Your task to perform on an android device: Clear all items from cart on costco.com. Add panasonic triple a to the cart on costco.com, then select checkout. Image 0: 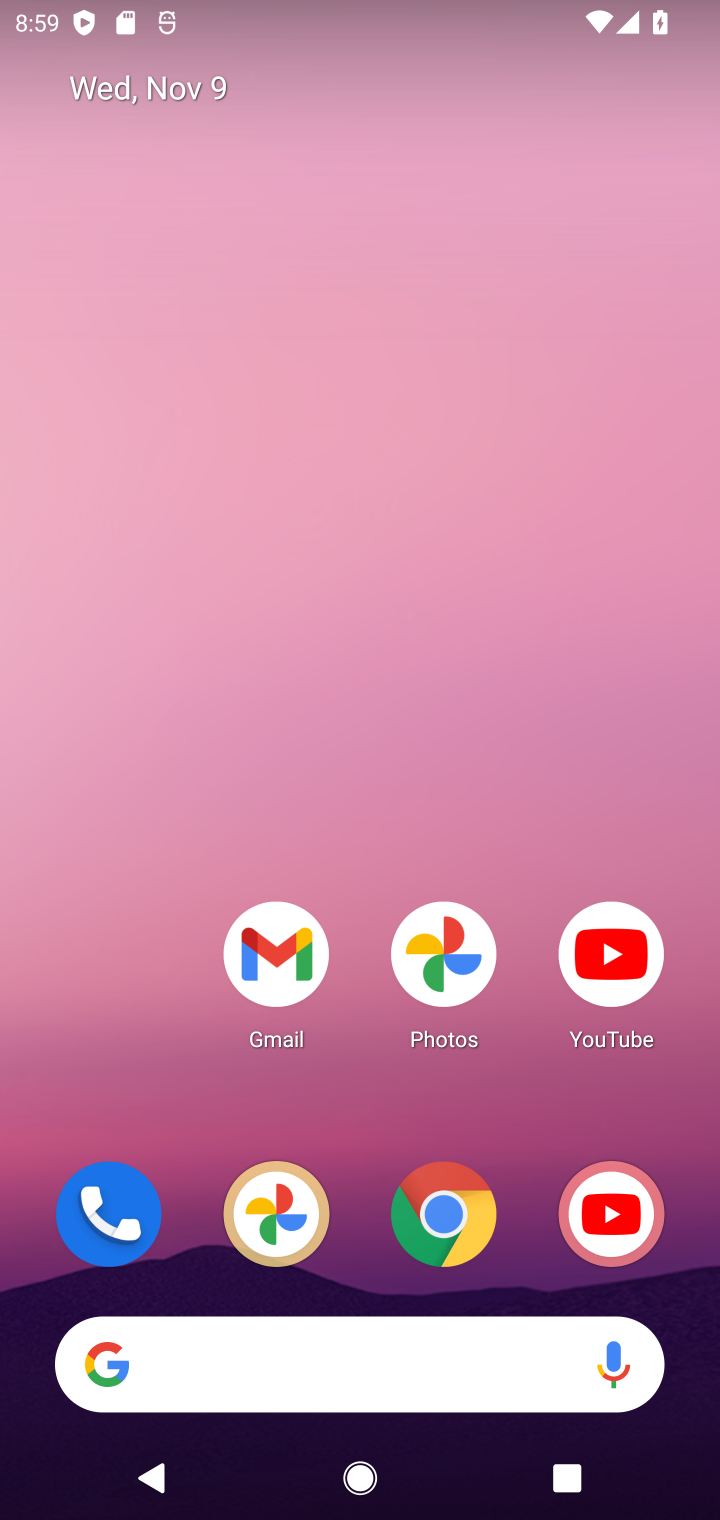
Step 0: drag from (410, 620) to (437, 88)
Your task to perform on an android device: Clear all items from cart on costco.com. Add panasonic triple a to the cart on costco.com, then select checkout. Image 1: 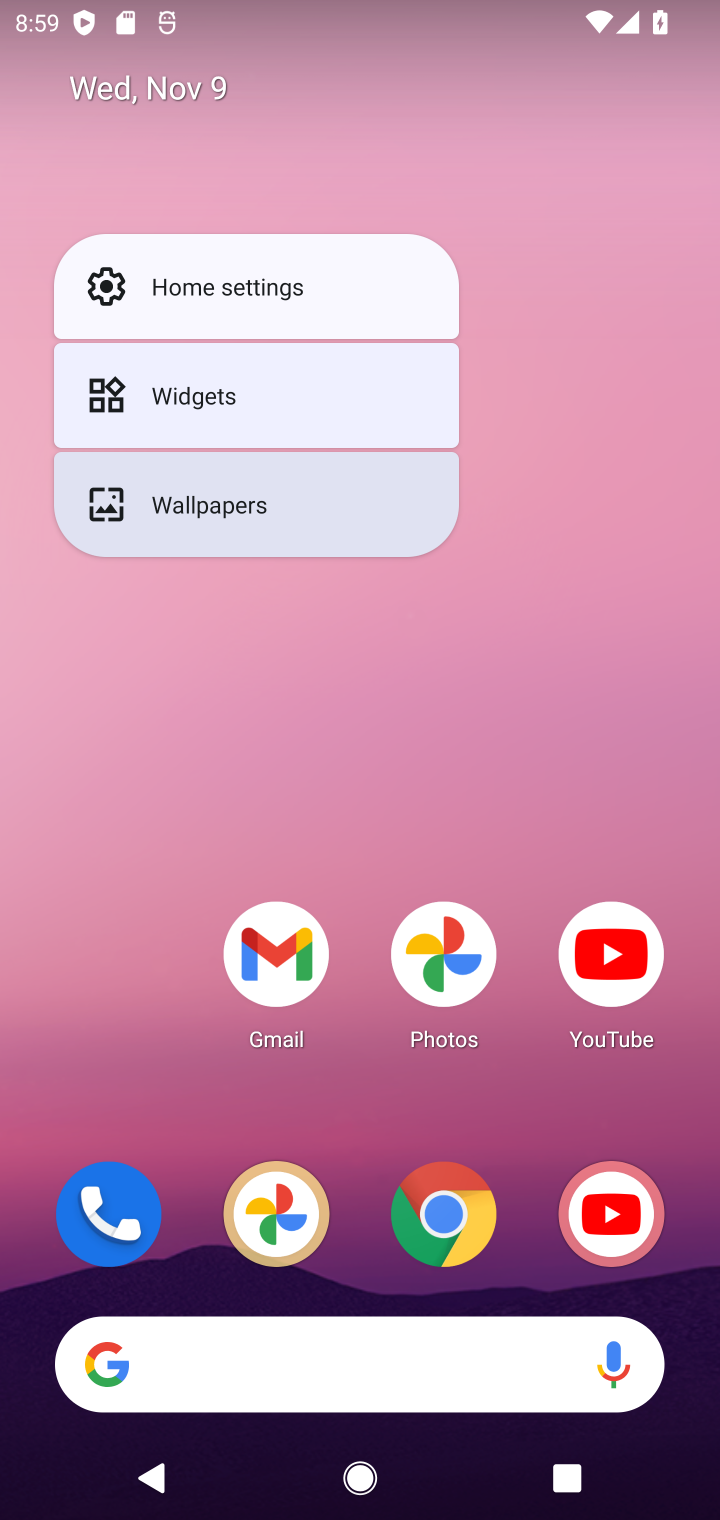
Step 1: click (656, 509)
Your task to perform on an android device: Clear all items from cart on costco.com. Add panasonic triple a to the cart on costco.com, then select checkout. Image 2: 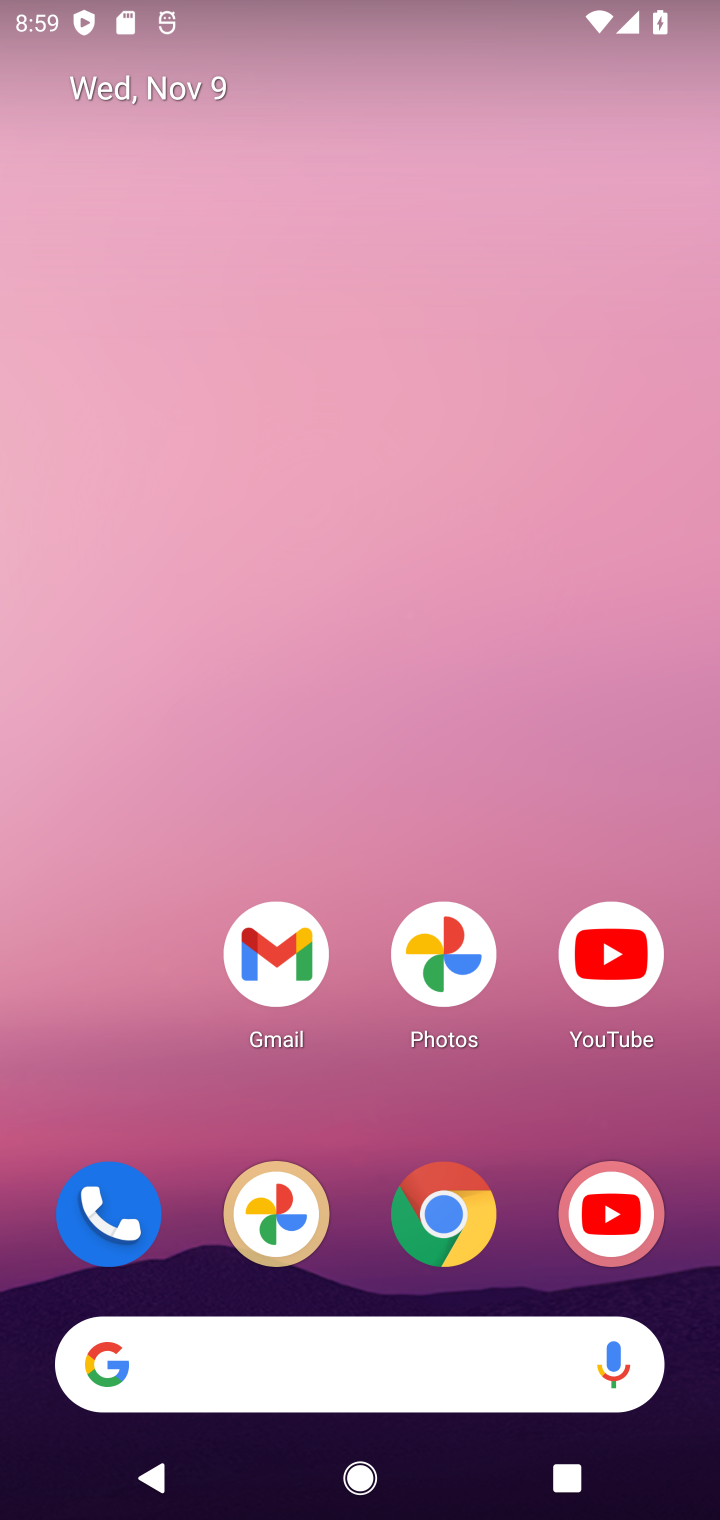
Step 2: drag from (364, 1130) to (443, 29)
Your task to perform on an android device: Clear all items from cart on costco.com. Add panasonic triple a to the cart on costco.com, then select checkout. Image 3: 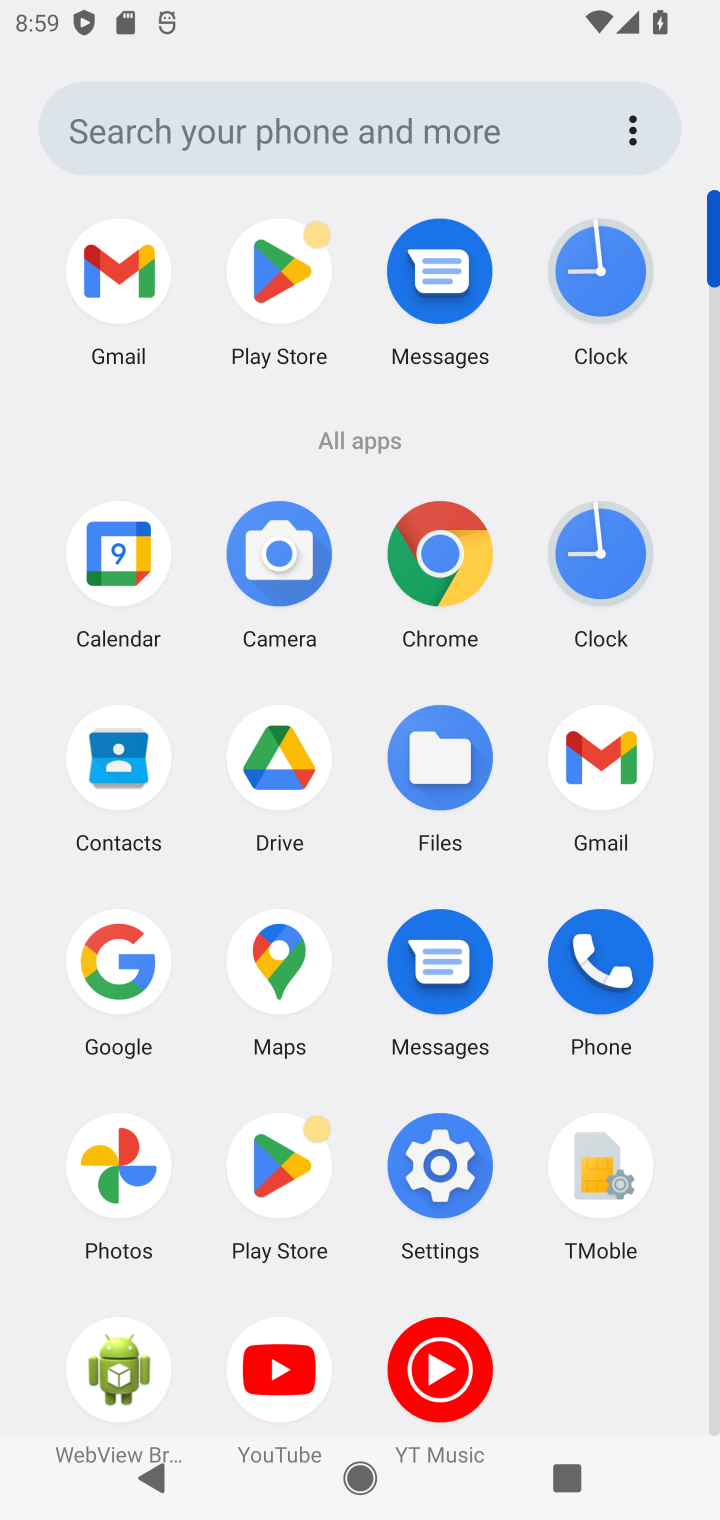
Step 3: click (436, 544)
Your task to perform on an android device: Clear all items from cart on costco.com. Add panasonic triple a to the cart on costco.com, then select checkout. Image 4: 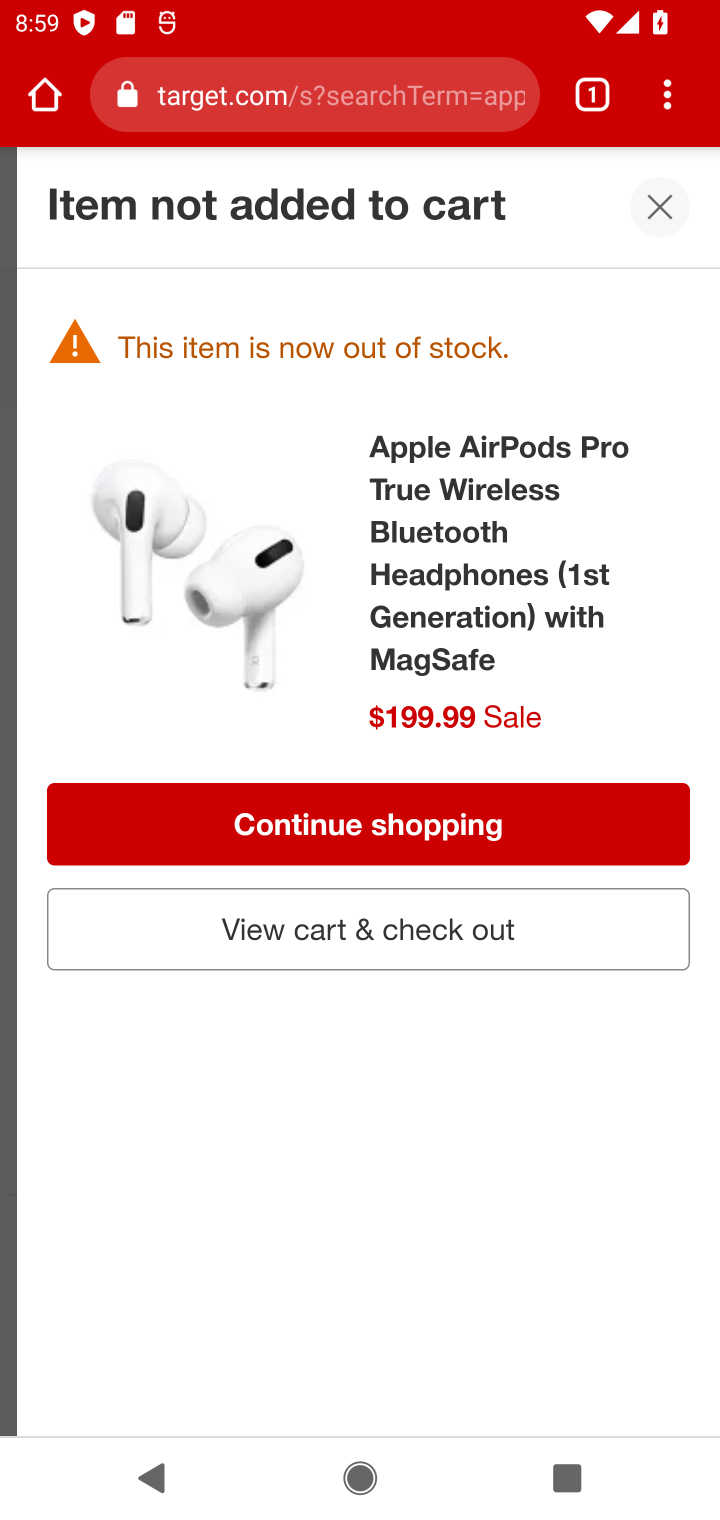
Step 4: click (412, 99)
Your task to perform on an android device: Clear all items from cart on costco.com. Add panasonic triple a to the cart on costco.com, then select checkout. Image 5: 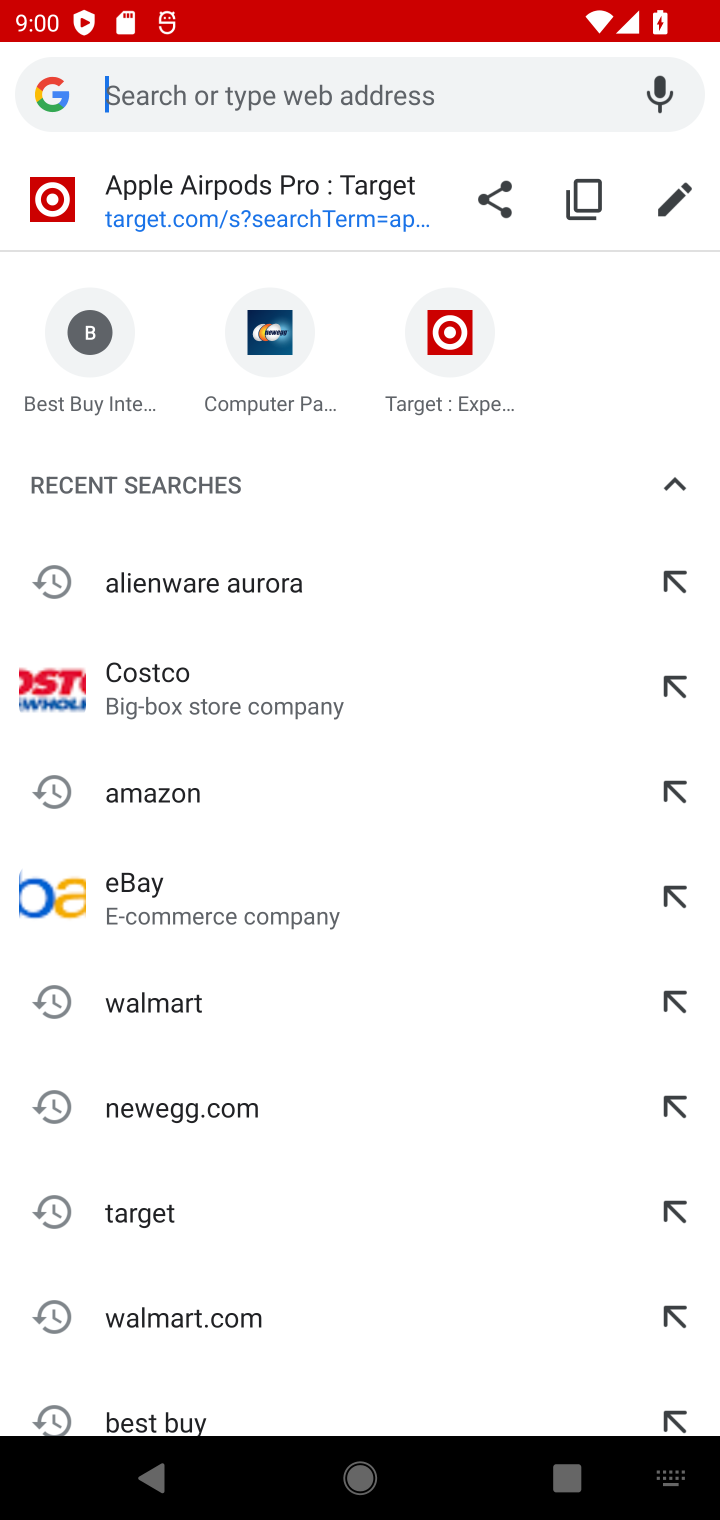
Step 5: type "costco.com"
Your task to perform on an android device: Clear all items from cart on costco.com. Add panasonic triple a to the cart on costco.com, then select checkout. Image 6: 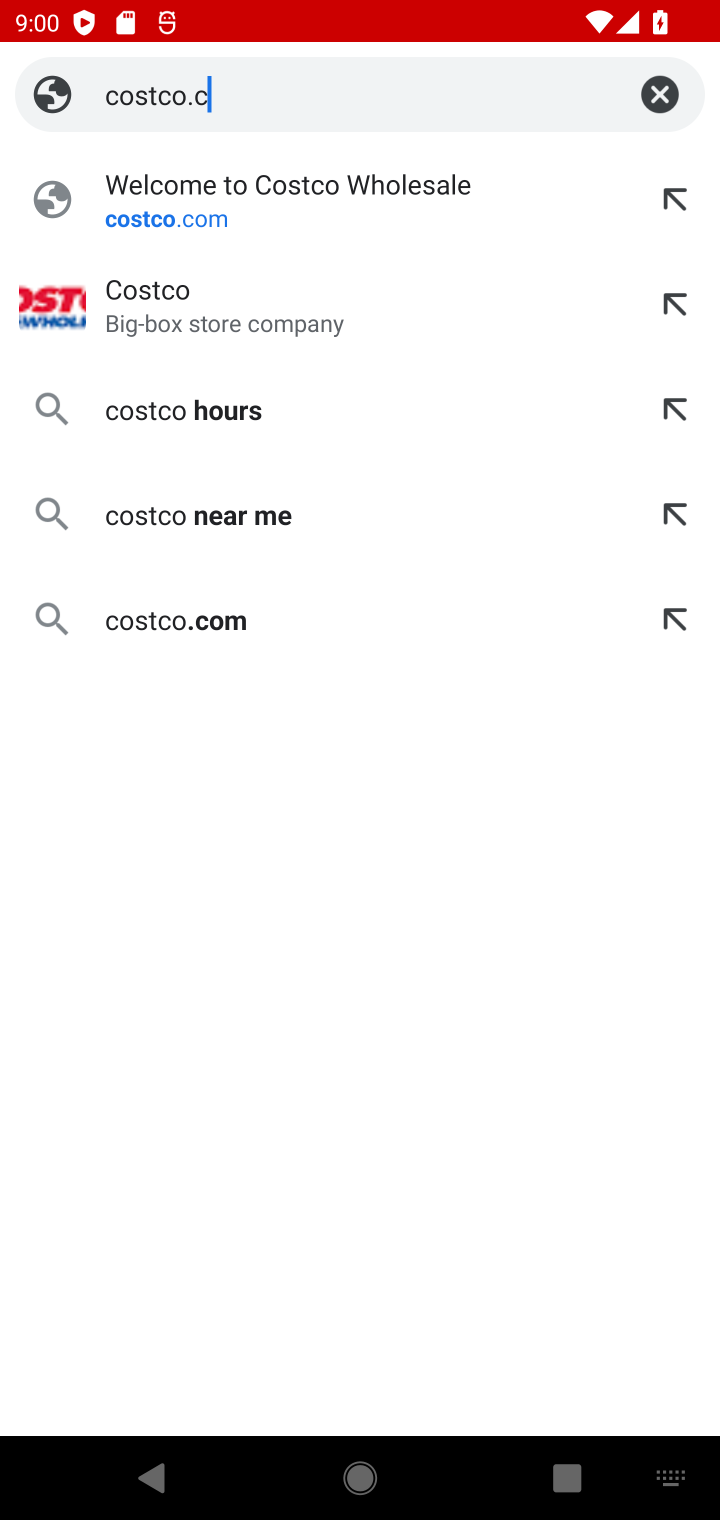
Step 6: press enter
Your task to perform on an android device: Clear all items from cart on costco.com. Add panasonic triple a to the cart on costco.com, then select checkout. Image 7: 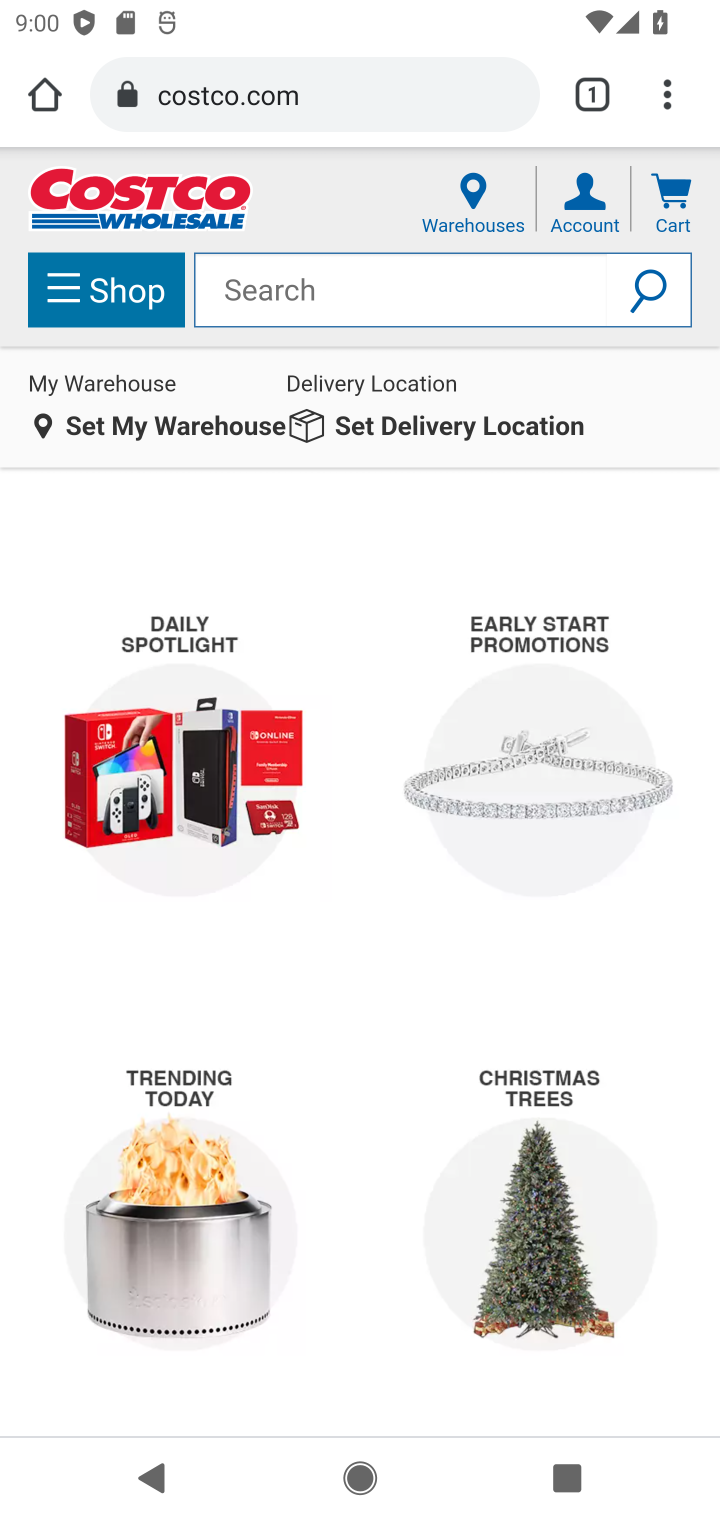
Step 7: click (487, 309)
Your task to perform on an android device: Clear all items from cart on costco.com. Add panasonic triple a to the cart on costco.com, then select checkout. Image 8: 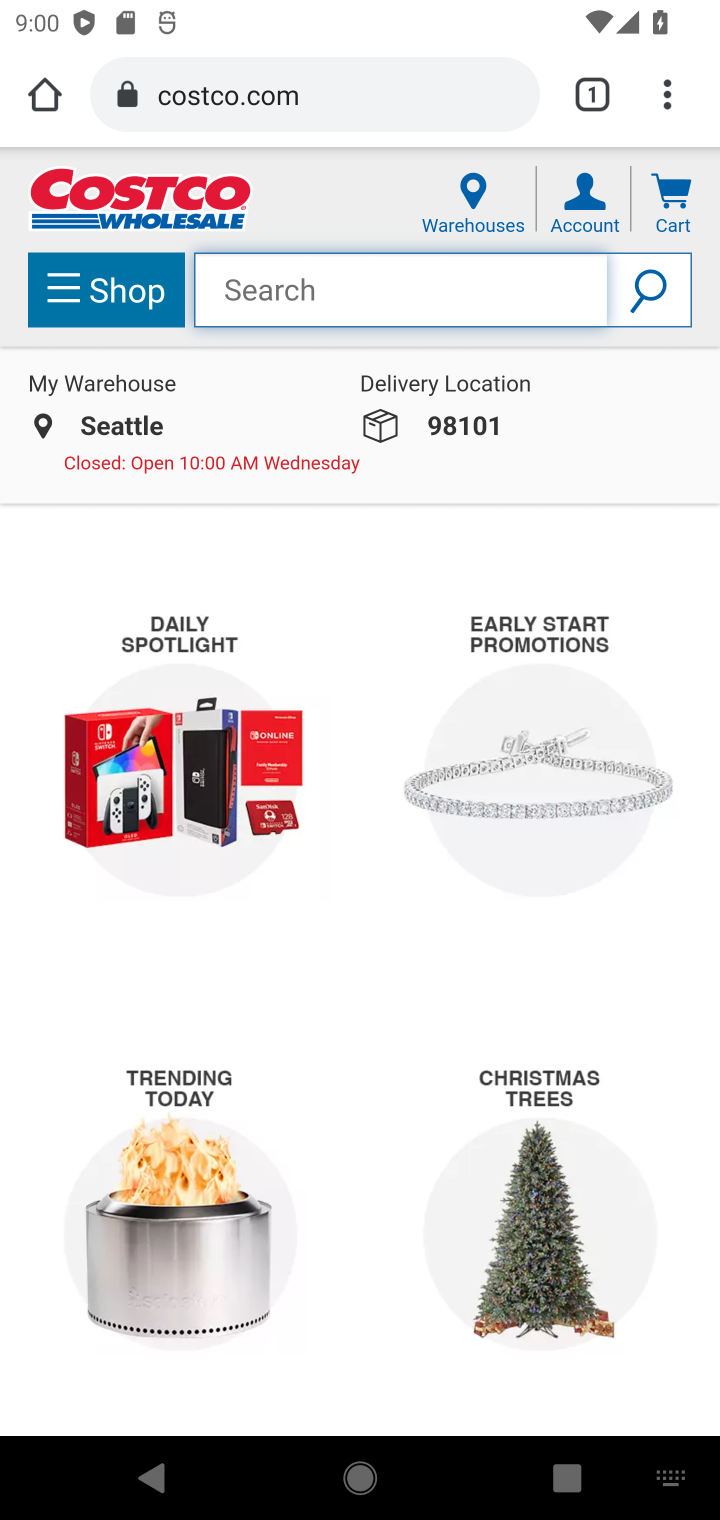
Step 8: click (673, 182)
Your task to perform on an android device: Clear all items from cart on costco.com. Add panasonic triple a to the cart on costco.com, then select checkout. Image 9: 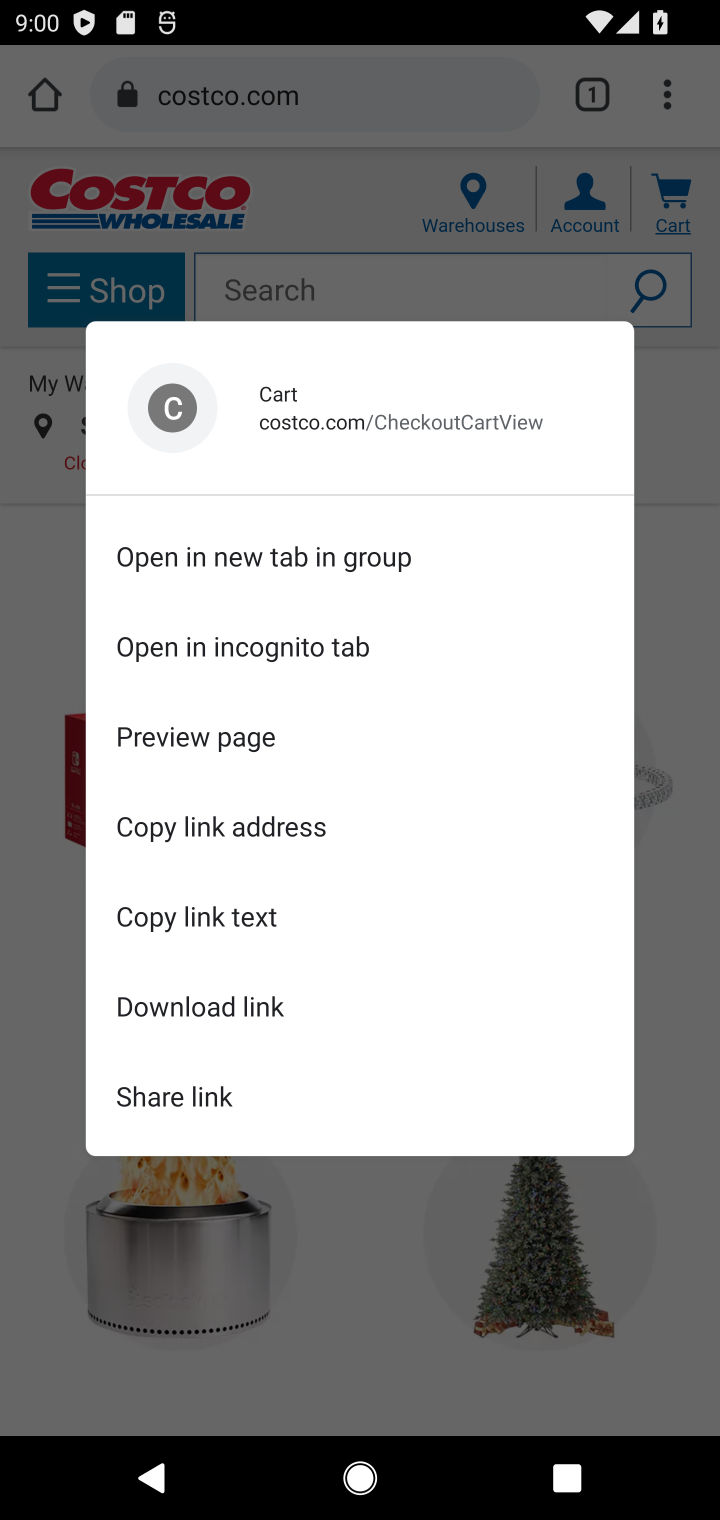
Step 9: click (660, 224)
Your task to perform on an android device: Clear all items from cart on costco.com. Add panasonic triple a to the cart on costco.com, then select checkout. Image 10: 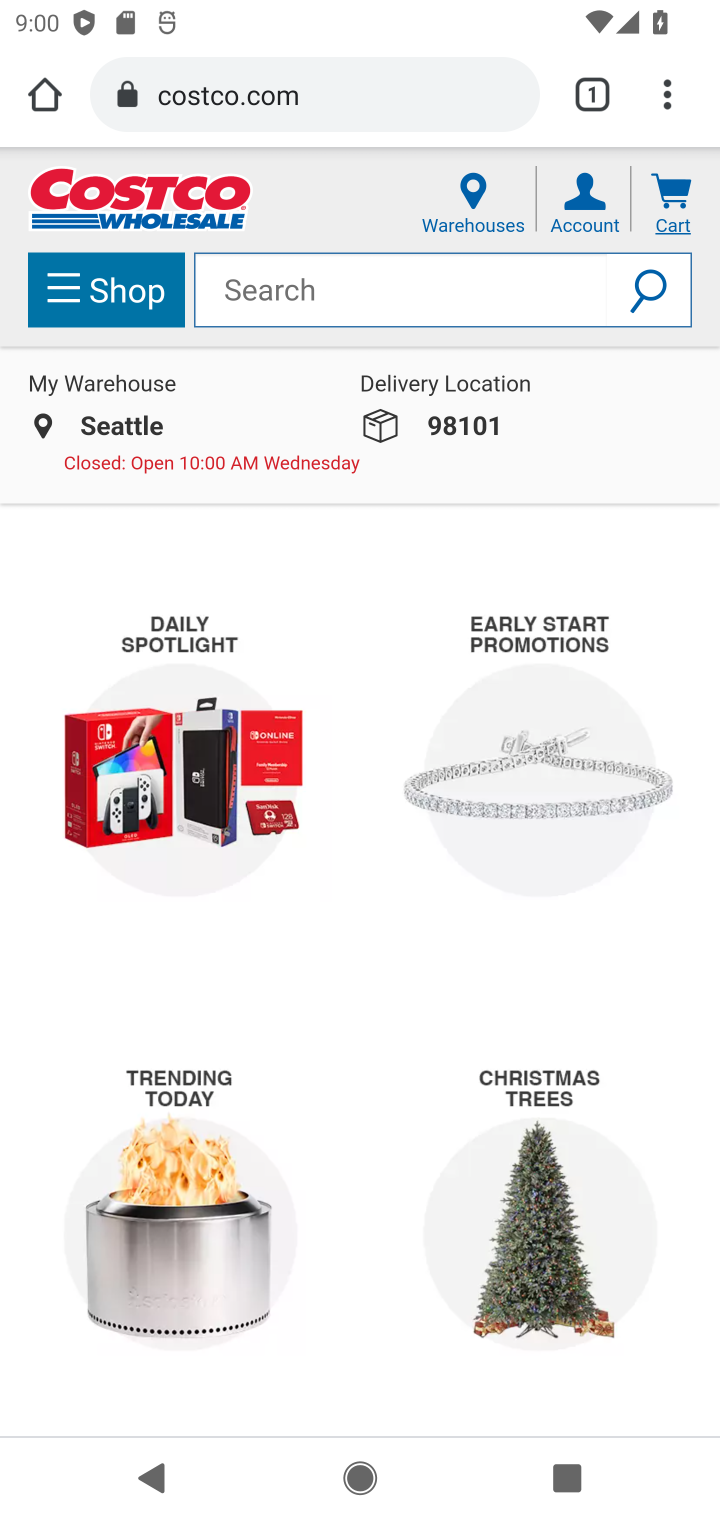
Step 10: click (668, 203)
Your task to perform on an android device: Clear all items from cart on costco.com. Add panasonic triple a to the cart on costco.com, then select checkout. Image 11: 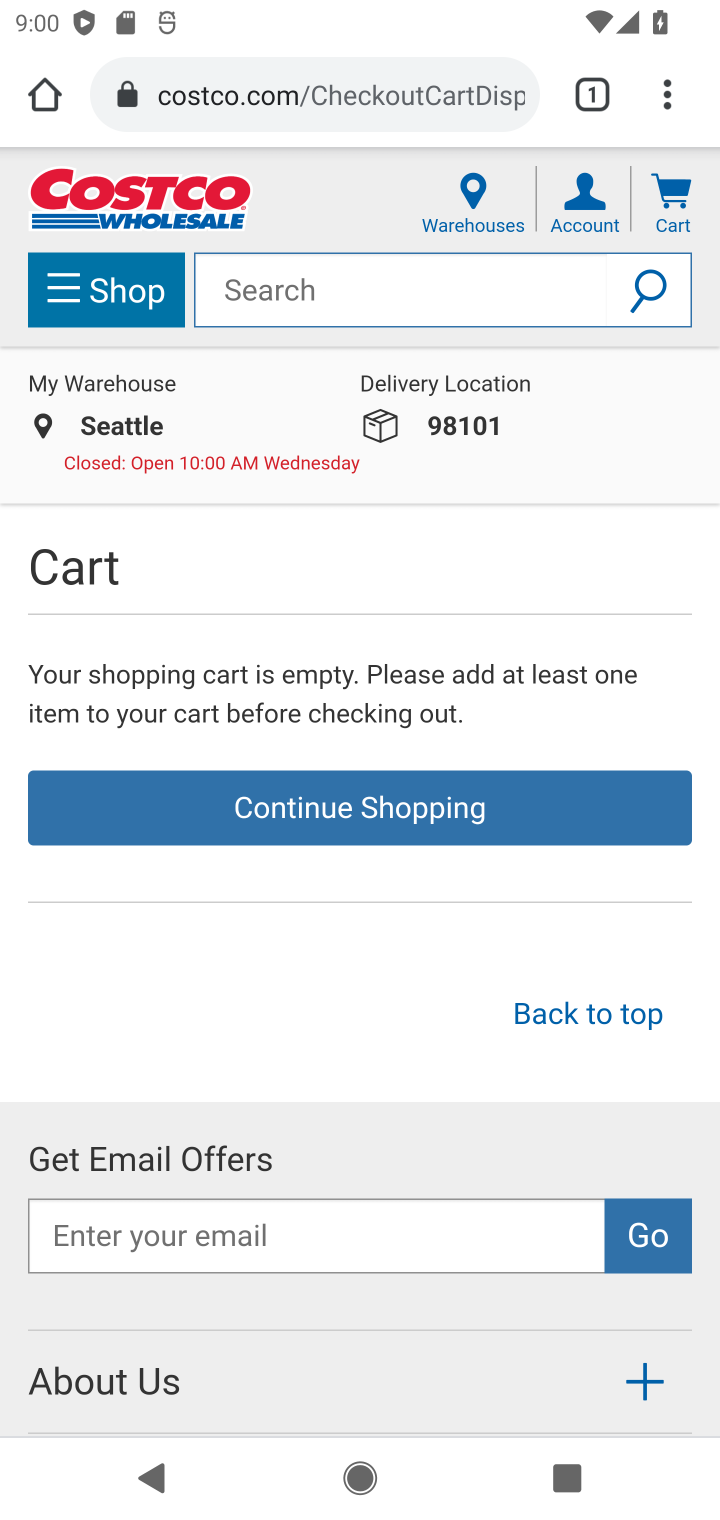
Step 11: click (399, 269)
Your task to perform on an android device: Clear all items from cart on costco.com. Add panasonic triple a to the cart on costco.com, then select checkout. Image 12: 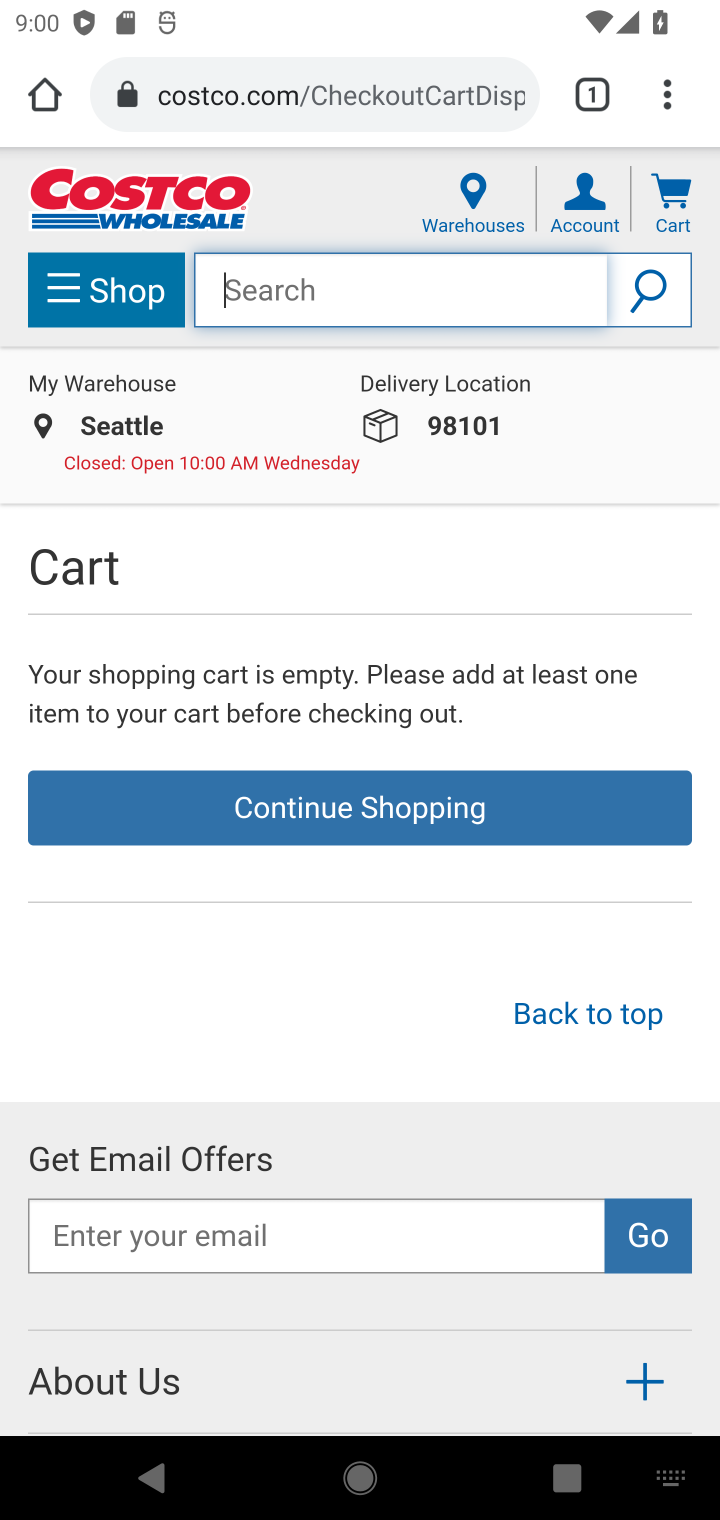
Step 12: type "panasonic triple a"
Your task to perform on an android device: Clear all items from cart on costco.com. Add panasonic triple a to the cart on costco.com, then select checkout. Image 13: 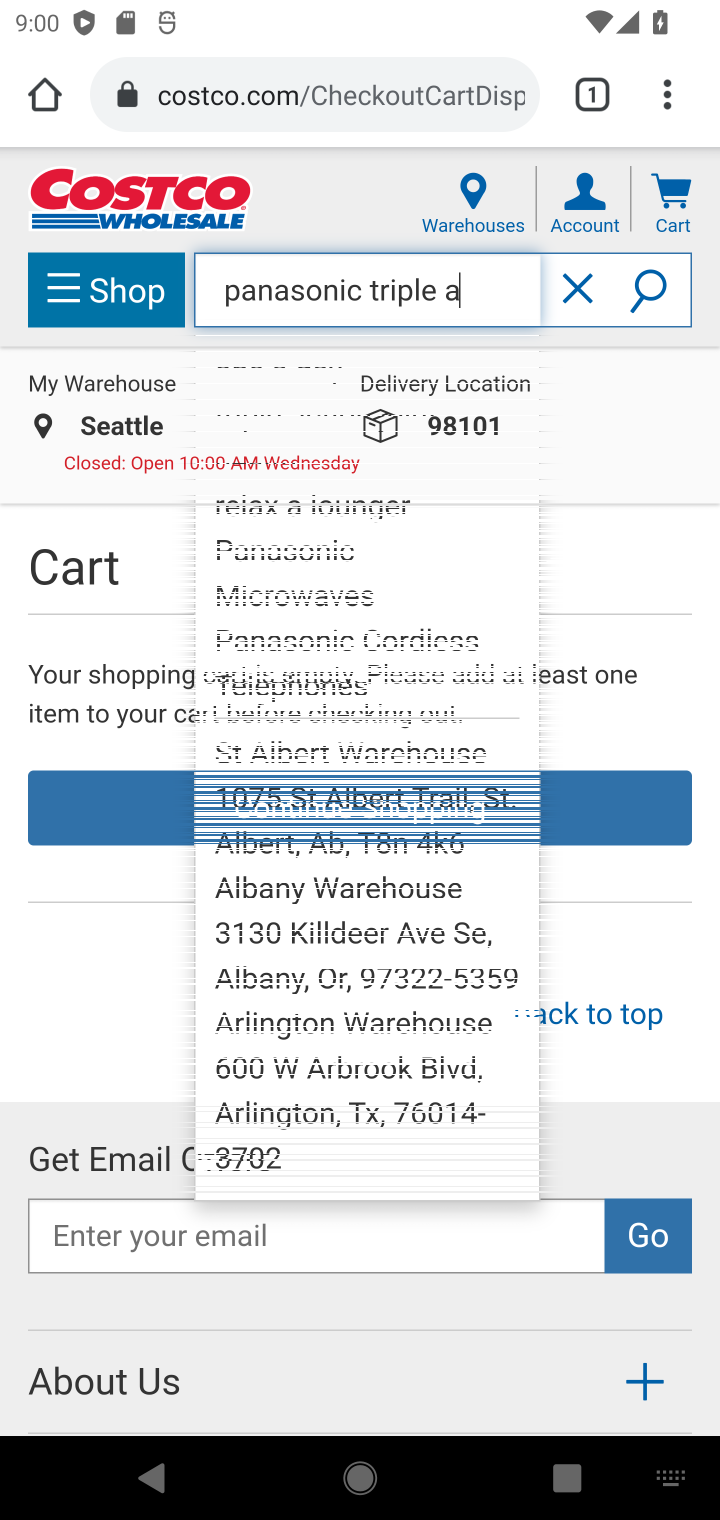
Step 13: press enter
Your task to perform on an android device: Clear all items from cart on costco.com. Add panasonic triple a to the cart on costco.com, then select checkout. Image 14: 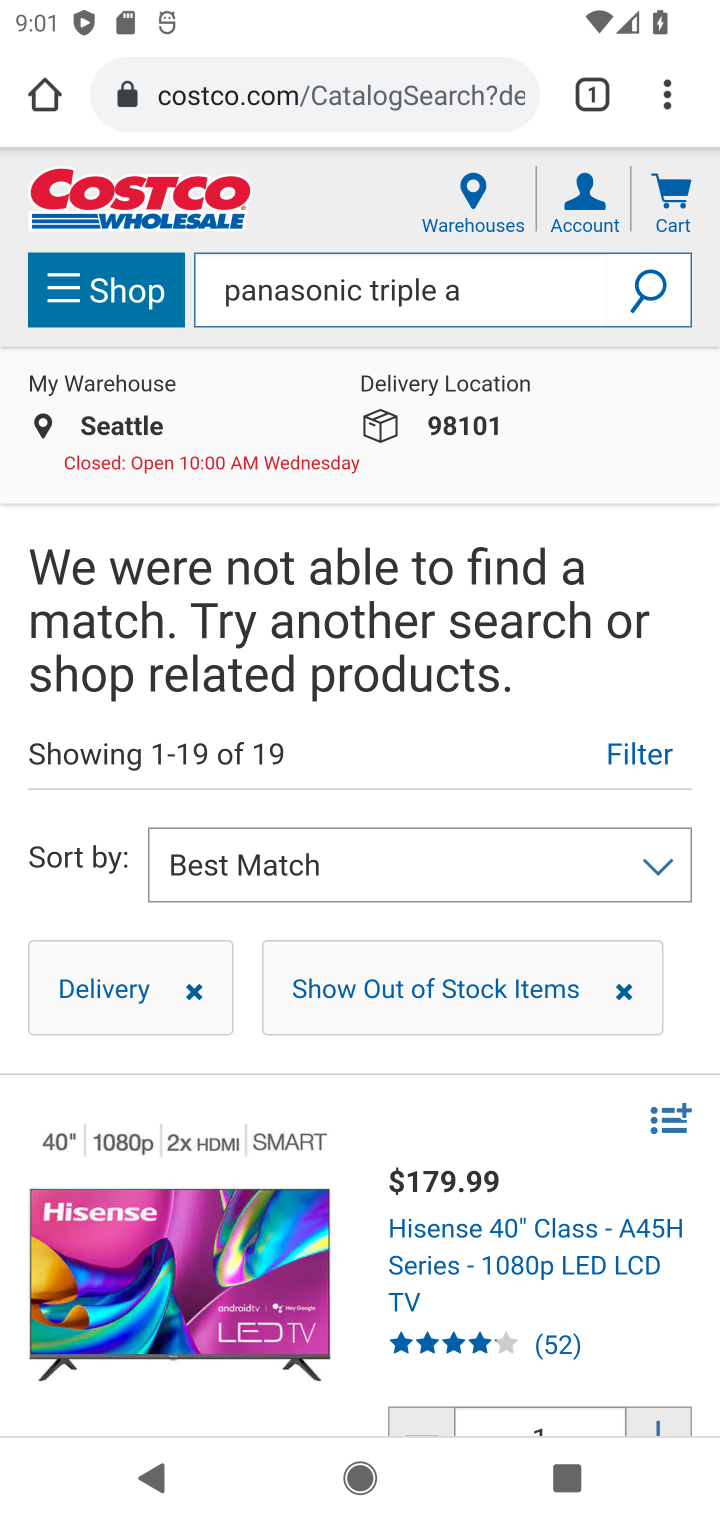
Step 14: task complete